Your task to perform on an android device: Clear all items from cart on walmart. Search for "razer naga" on walmart, select the first entry, and add it to the cart. Image 0: 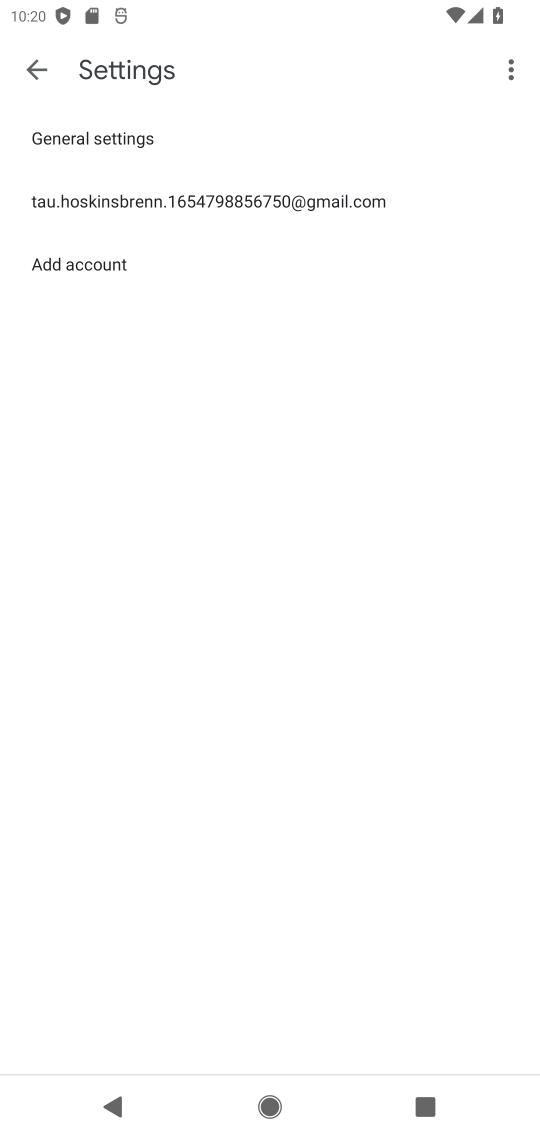
Step 0: press home button
Your task to perform on an android device: Clear all items from cart on walmart. Search for "razer naga" on walmart, select the first entry, and add it to the cart. Image 1: 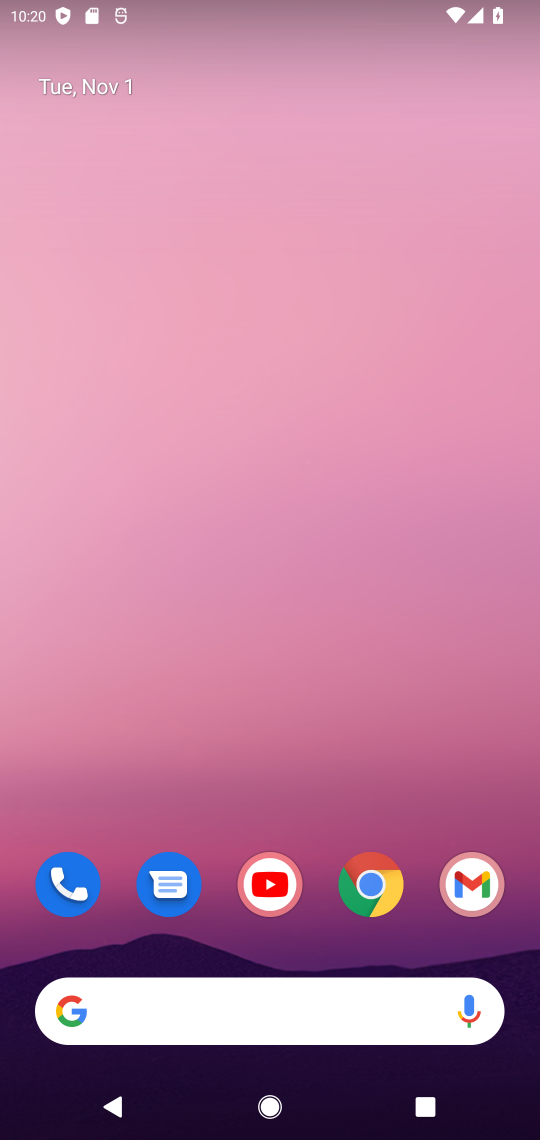
Step 1: click (379, 880)
Your task to perform on an android device: Clear all items from cart on walmart. Search for "razer naga" on walmart, select the first entry, and add it to the cart. Image 2: 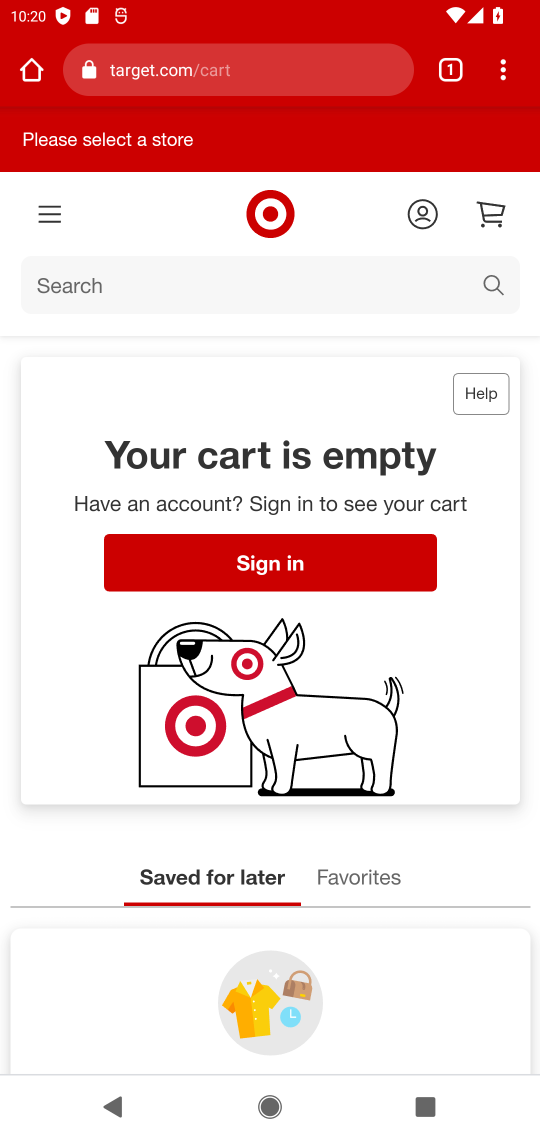
Step 2: click (189, 68)
Your task to perform on an android device: Clear all items from cart on walmart. Search for "razer naga" on walmart, select the first entry, and add it to the cart. Image 3: 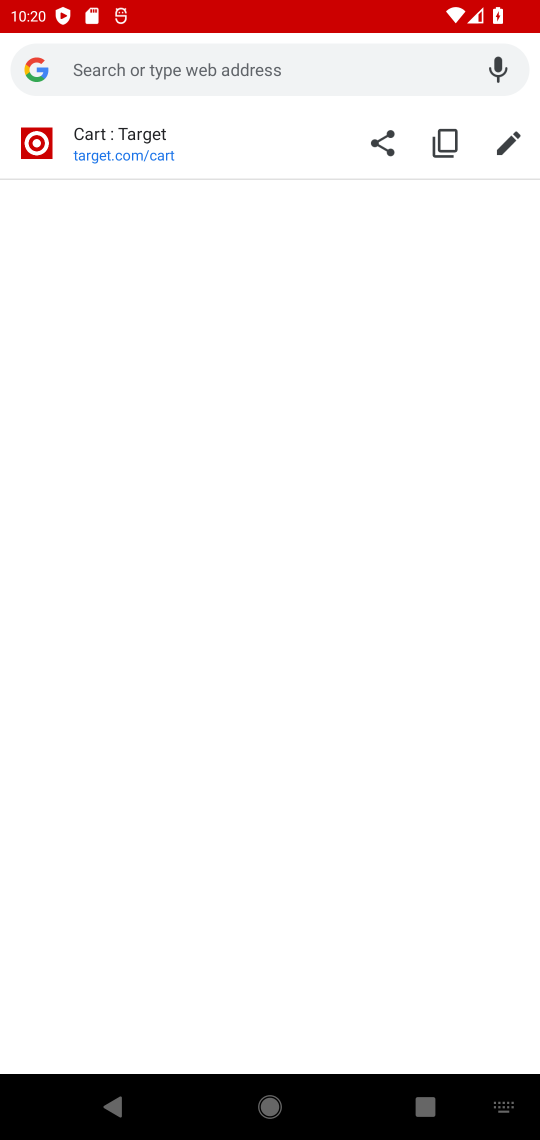
Step 3: type "walmart.com"
Your task to perform on an android device: Clear all items from cart on walmart. Search for "razer naga" on walmart, select the first entry, and add it to the cart. Image 4: 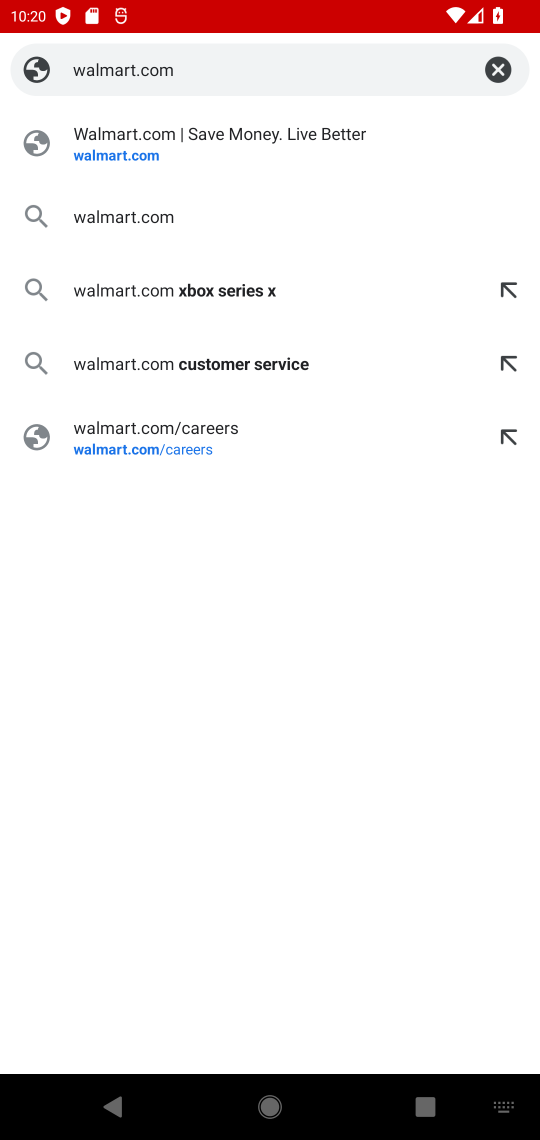
Step 4: click (130, 156)
Your task to perform on an android device: Clear all items from cart on walmart. Search for "razer naga" on walmart, select the first entry, and add it to the cart. Image 5: 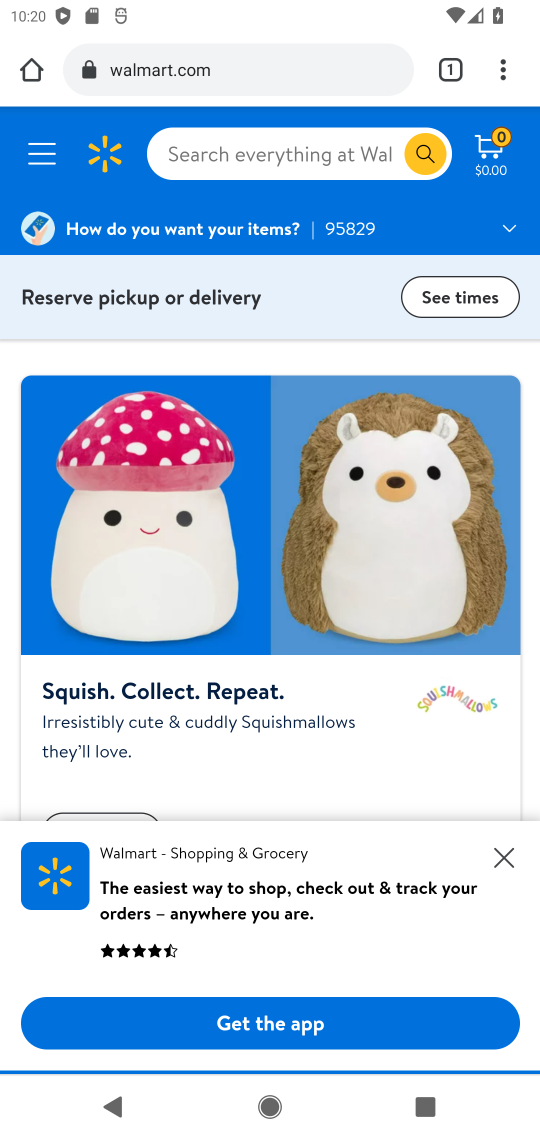
Step 5: click (214, 153)
Your task to perform on an android device: Clear all items from cart on walmart. Search for "razer naga" on walmart, select the first entry, and add it to the cart. Image 6: 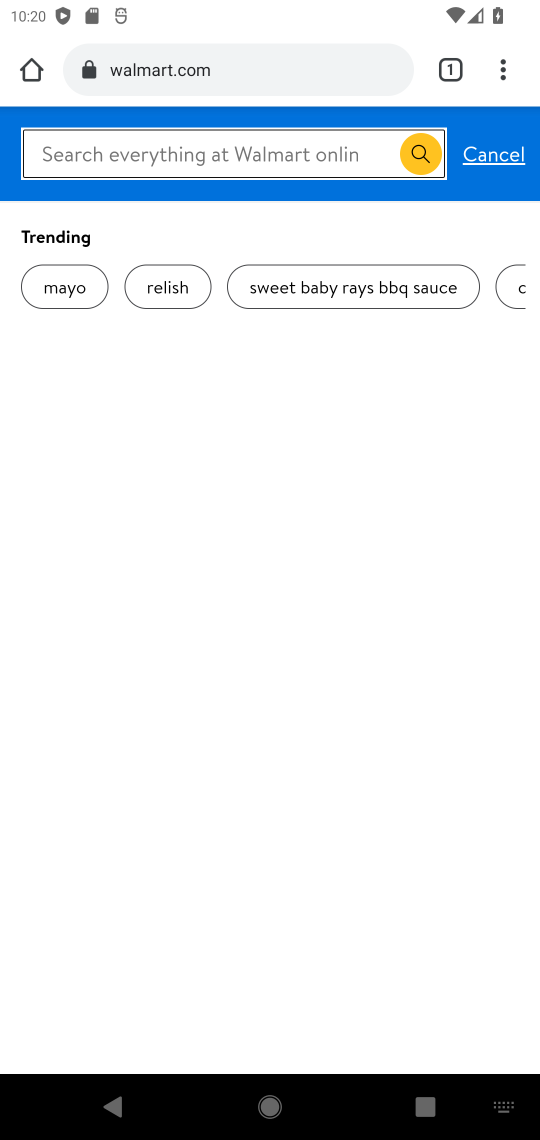
Step 6: type "razer naga"
Your task to perform on an android device: Clear all items from cart on walmart. Search for "razer naga" on walmart, select the first entry, and add it to the cart. Image 7: 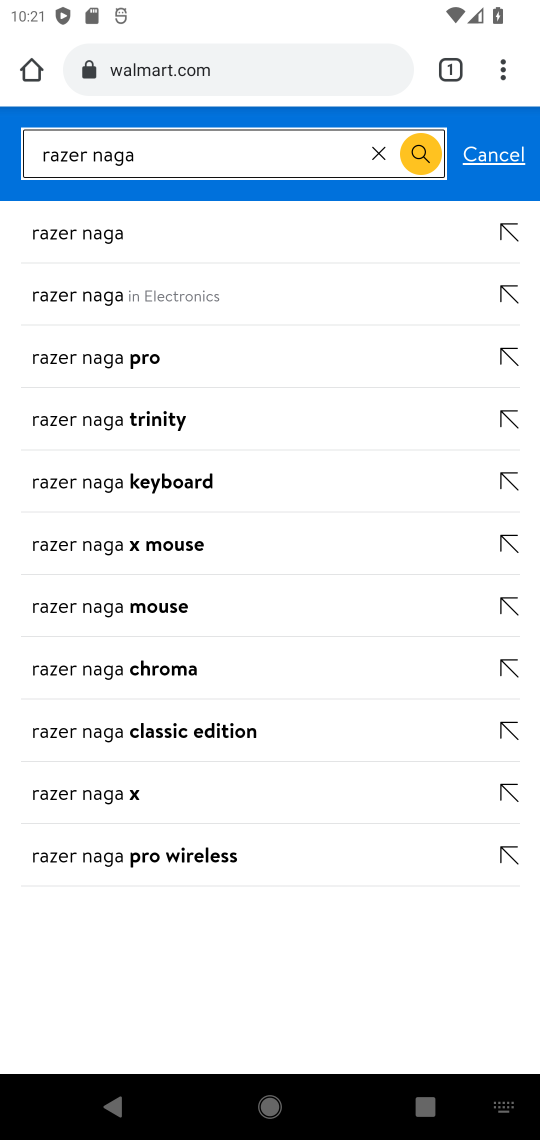
Step 7: click (57, 239)
Your task to perform on an android device: Clear all items from cart on walmart. Search for "razer naga" on walmart, select the first entry, and add it to the cart. Image 8: 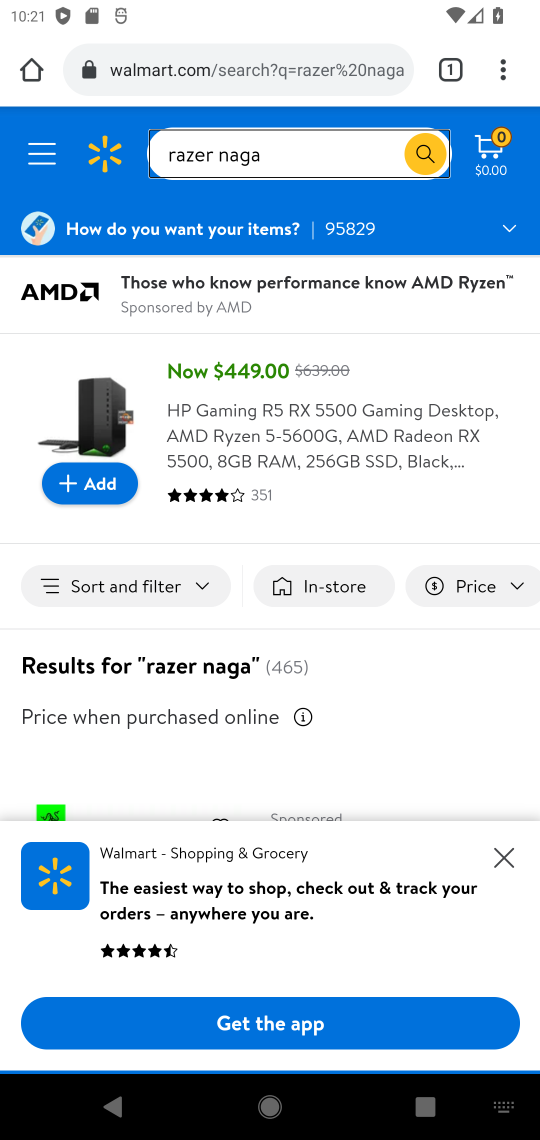
Step 8: task complete